Your task to perform on an android device: turn off javascript in the chrome app Image 0: 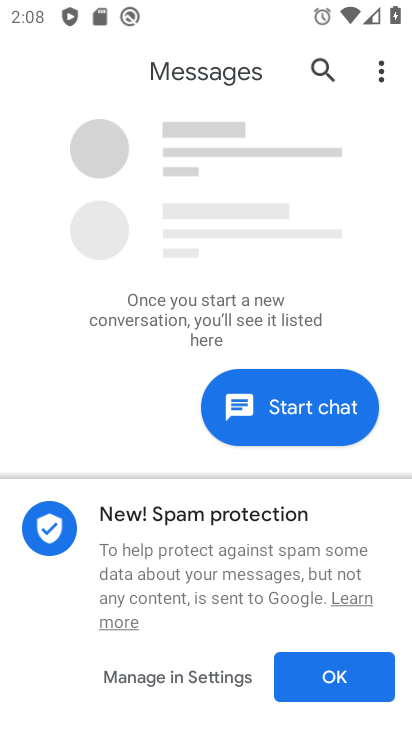
Step 0: press home button
Your task to perform on an android device: turn off javascript in the chrome app Image 1: 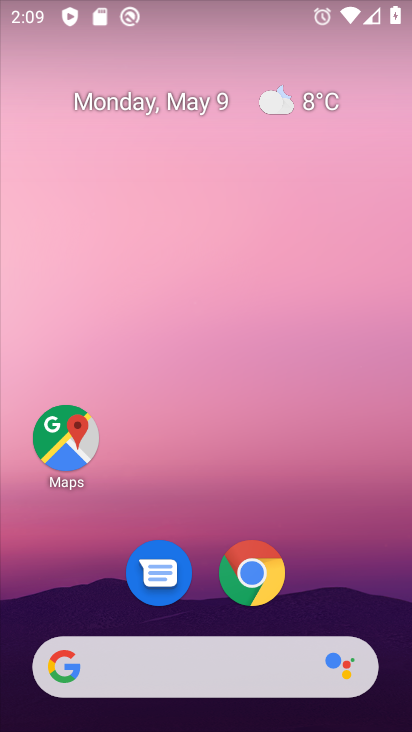
Step 1: drag from (141, 683) to (334, 109)
Your task to perform on an android device: turn off javascript in the chrome app Image 2: 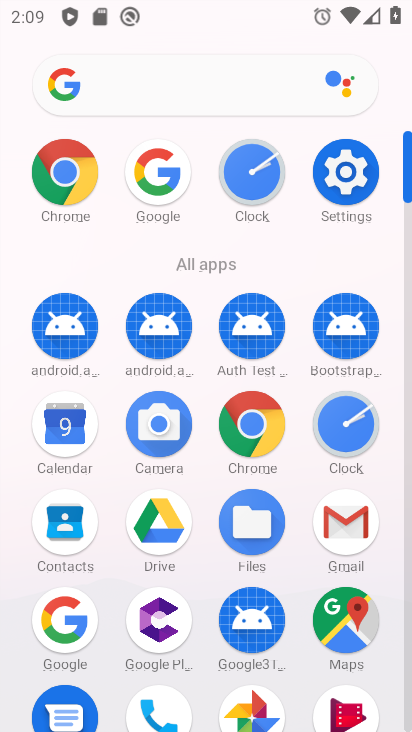
Step 2: click (62, 181)
Your task to perform on an android device: turn off javascript in the chrome app Image 3: 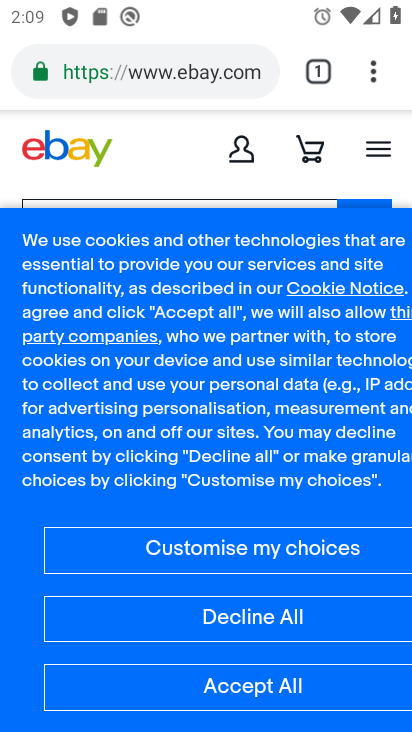
Step 3: drag from (375, 76) to (148, 569)
Your task to perform on an android device: turn off javascript in the chrome app Image 4: 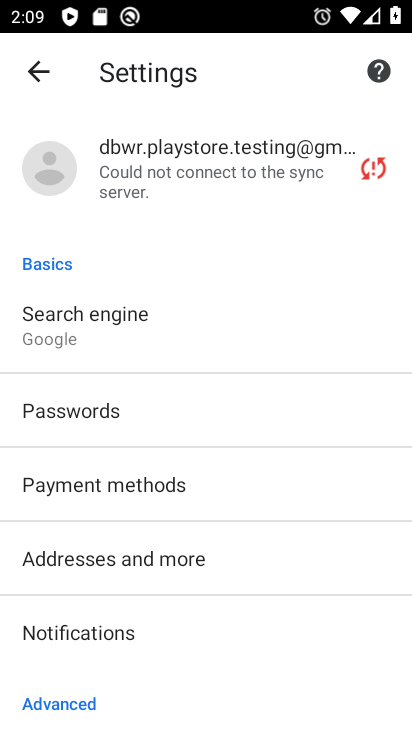
Step 4: drag from (104, 619) to (266, 188)
Your task to perform on an android device: turn off javascript in the chrome app Image 5: 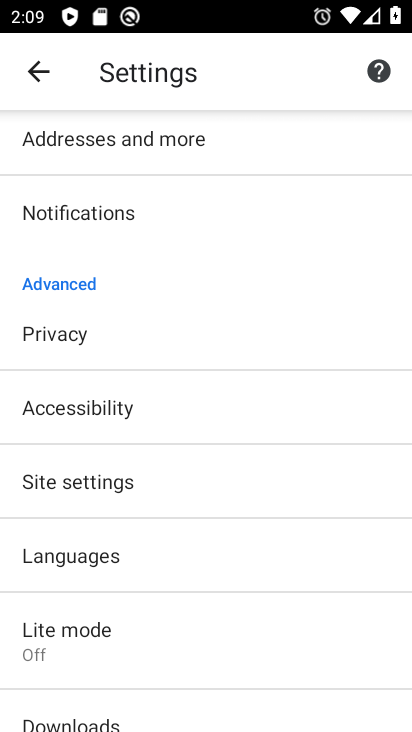
Step 5: click (89, 470)
Your task to perform on an android device: turn off javascript in the chrome app Image 6: 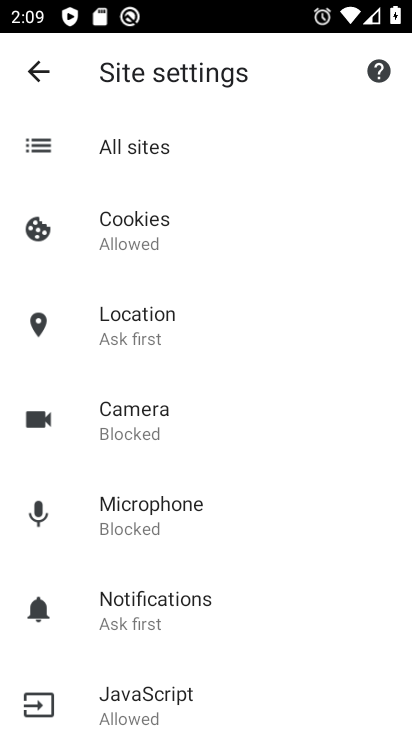
Step 6: drag from (211, 636) to (351, 158)
Your task to perform on an android device: turn off javascript in the chrome app Image 7: 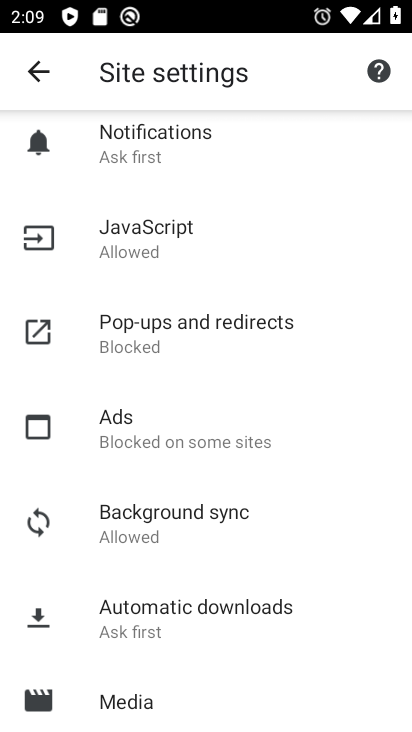
Step 7: click (127, 246)
Your task to perform on an android device: turn off javascript in the chrome app Image 8: 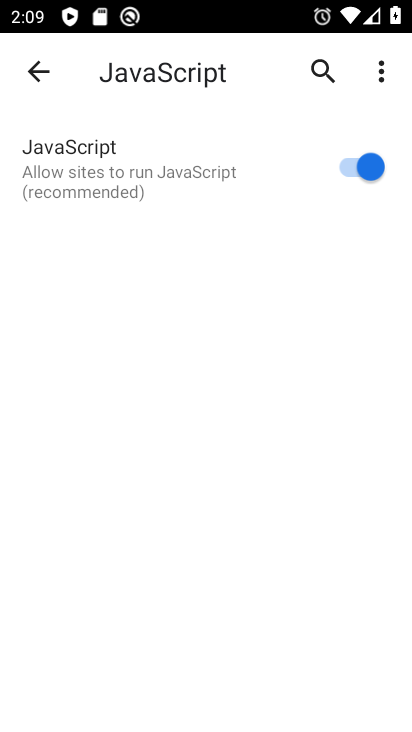
Step 8: click (346, 172)
Your task to perform on an android device: turn off javascript in the chrome app Image 9: 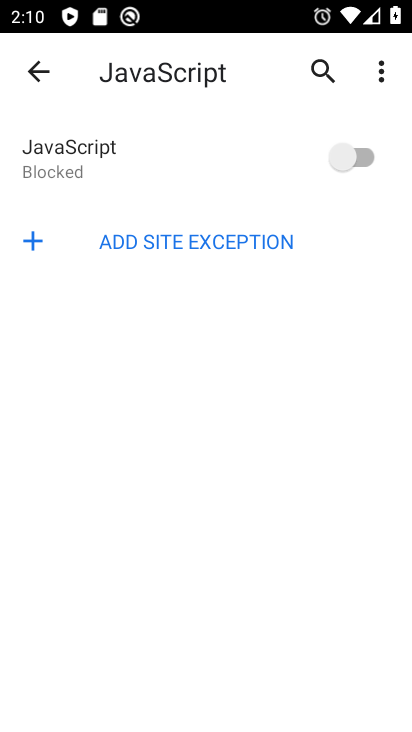
Step 9: task complete